Your task to perform on an android device: What is the news today? Image 0: 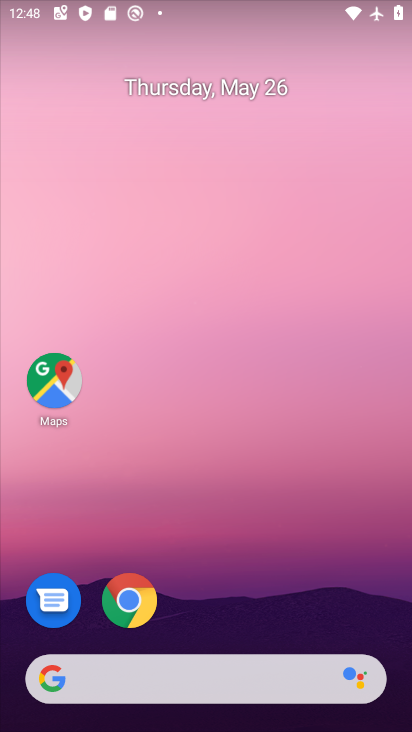
Step 0: drag from (243, 614) to (286, 93)
Your task to perform on an android device: What is the news today? Image 1: 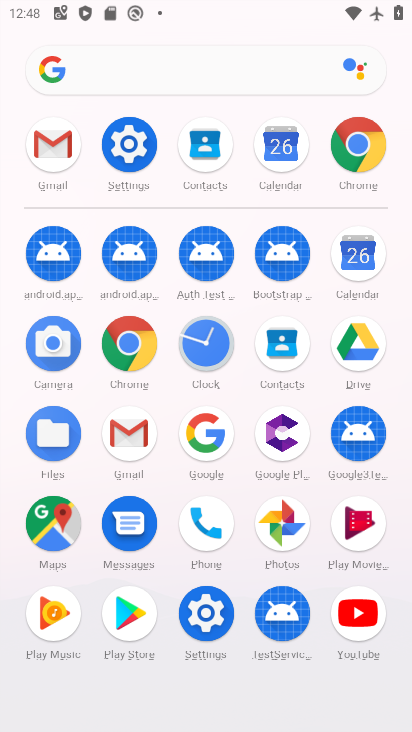
Step 1: click (141, 341)
Your task to perform on an android device: What is the news today? Image 2: 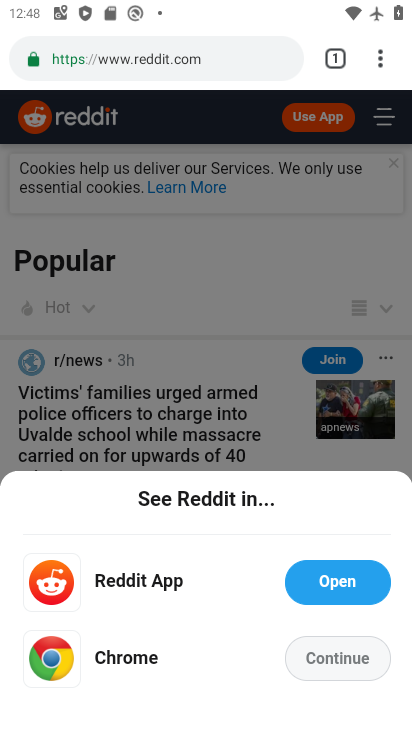
Step 2: click (250, 54)
Your task to perform on an android device: What is the news today? Image 3: 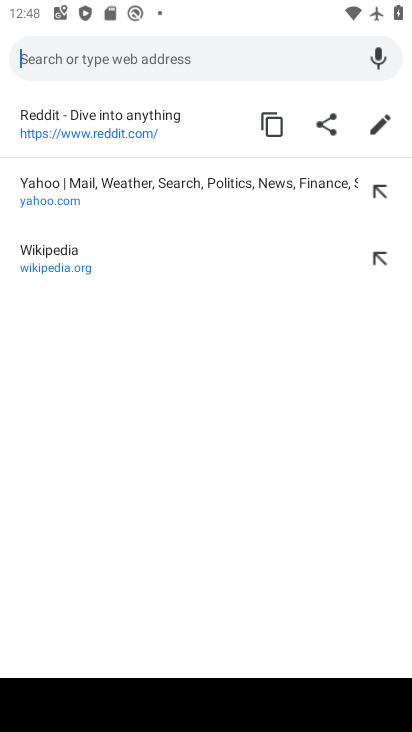
Step 3: type "news"
Your task to perform on an android device: What is the news today? Image 4: 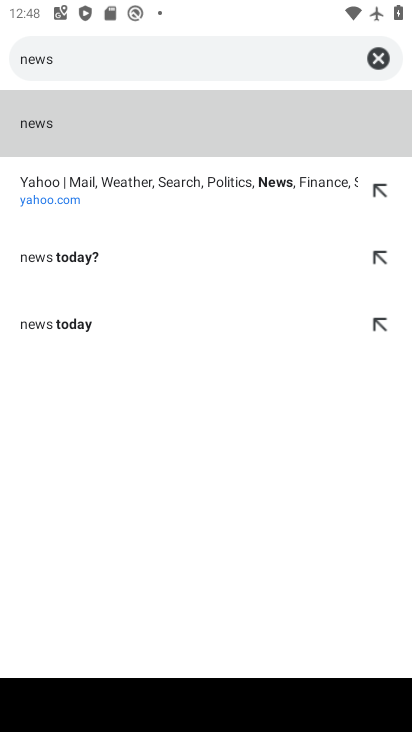
Step 4: click (28, 126)
Your task to perform on an android device: What is the news today? Image 5: 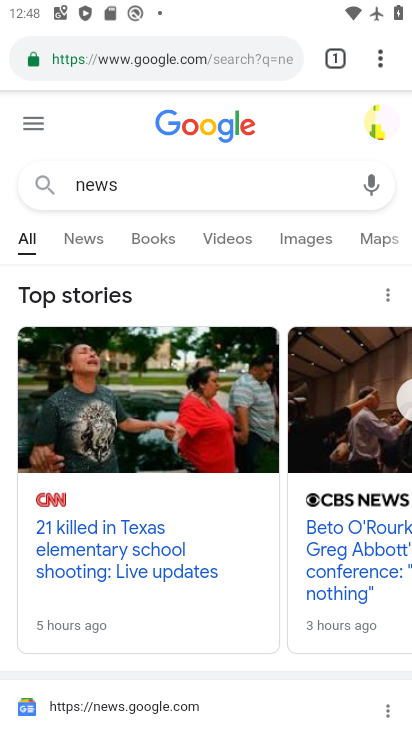
Step 5: drag from (190, 486) to (192, 314)
Your task to perform on an android device: What is the news today? Image 6: 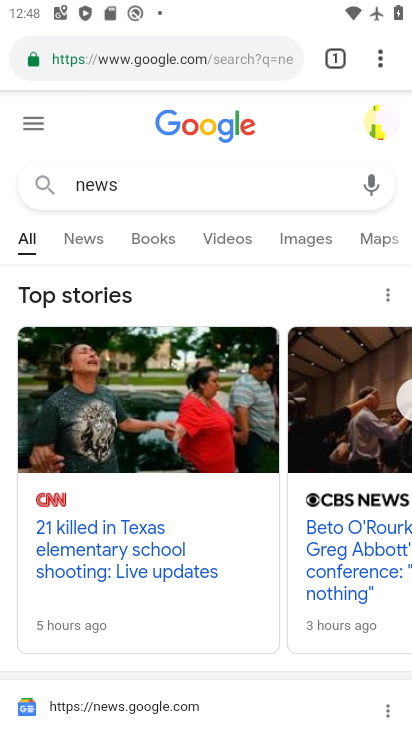
Step 6: click (75, 229)
Your task to perform on an android device: What is the news today? Image 7: 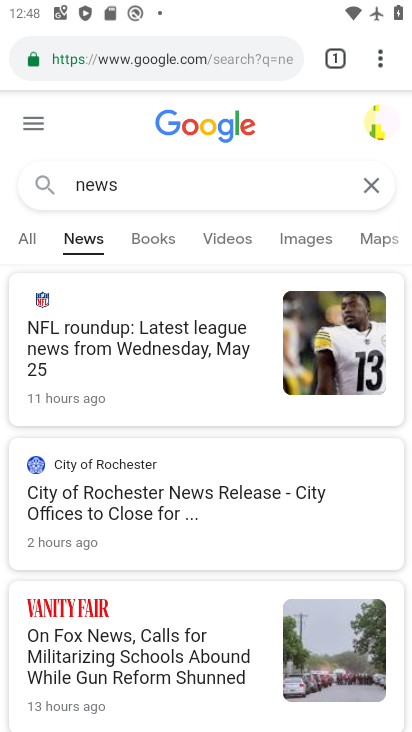
Step 7: task complete